Your task to perform on an android device: turn on notifications settings in the gmail app Image 0: 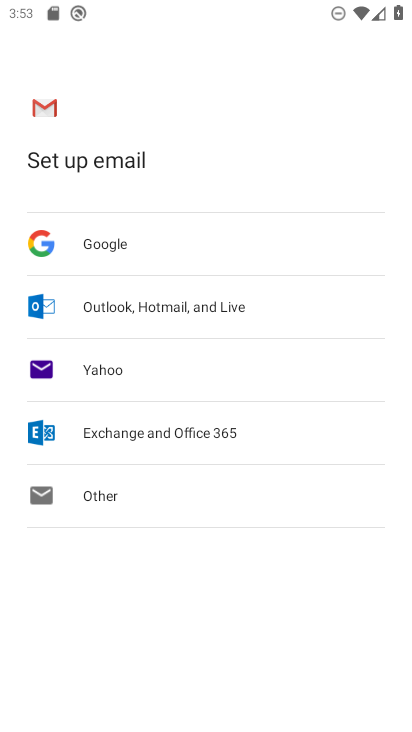
Step 0: press back button
Your task to perform on an android device: turn on notifications settings in the gmail app Image 1: 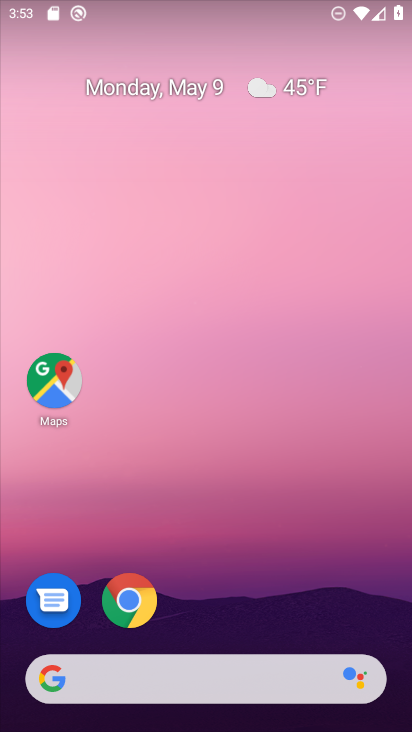
Step 1: drag from (280, 563) to (205, 4)
Your task to perform on an android device: turn on notifications settings in the gmail app Image 2: 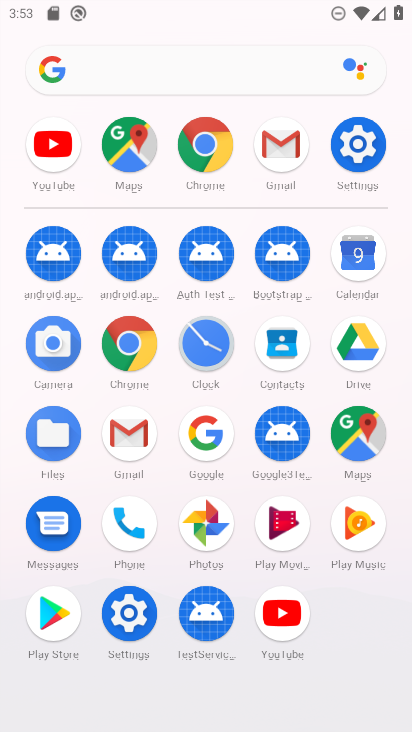
Step 2: drag from (1, 464) to (28, 165)
Your task to perform on an android device: turn on notifications settings in the gmail app Image 3: 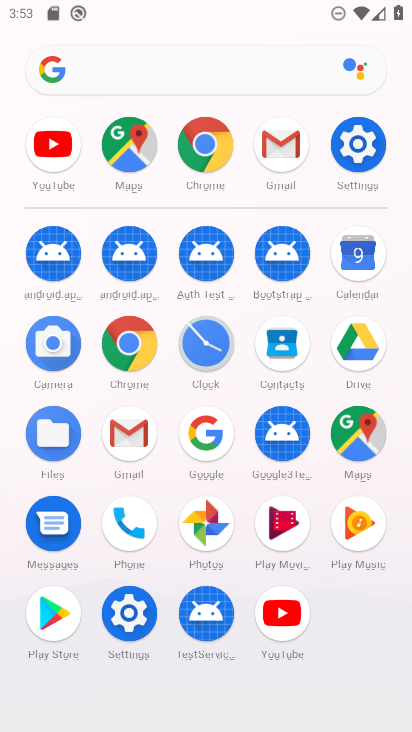
Step 3: drag from (0, 581) to (28, 275)
Your task to perform on an android device: turn on notifications settings in the gmail app Image 4: 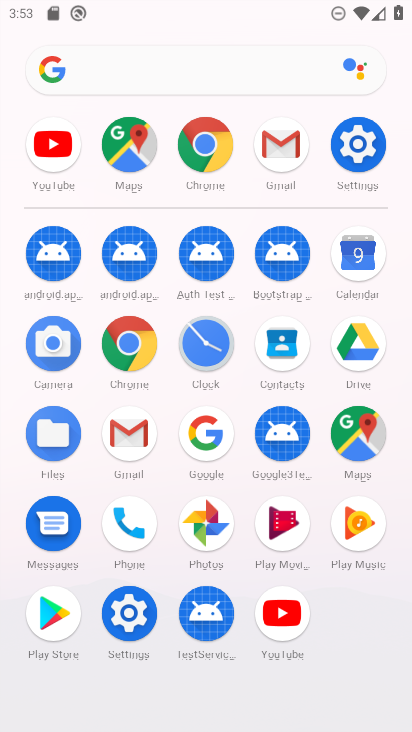
Step 4: click (289, 144)
Your task to perform on an android device: turn on notifications settings in the gmail app Image 5: 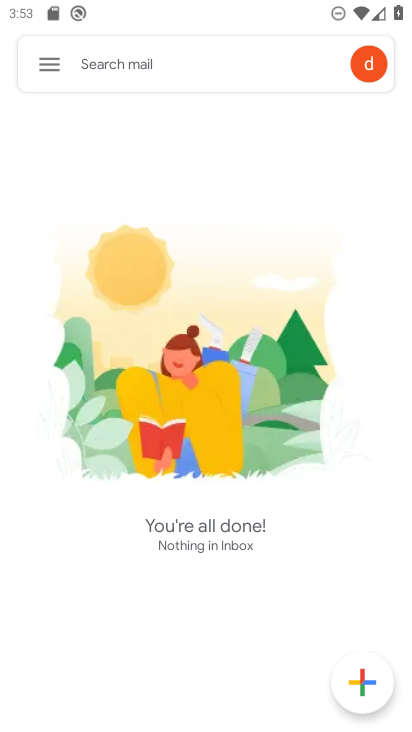
Step 5: click (58, 61)
Your task to perform on an android device: turn on notifications settings in the gmail app Image 6: 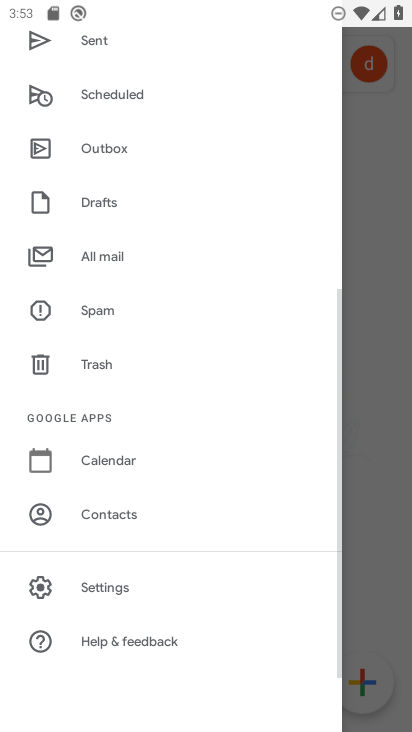
Step 6: drag from (170, 542) to (170, 176)
Your task to perform on an android device: turn on notifications settings in the gmail app Image 7: 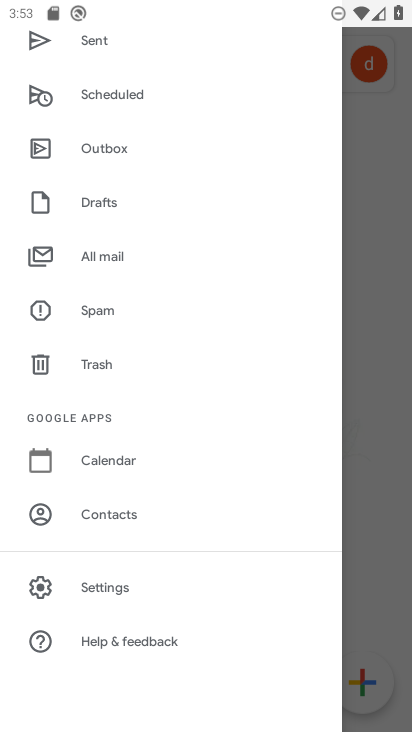
Step 7: click (119, 589)
Your task to perform on an android device: turn on notifications settings in the gmail app Image 8: 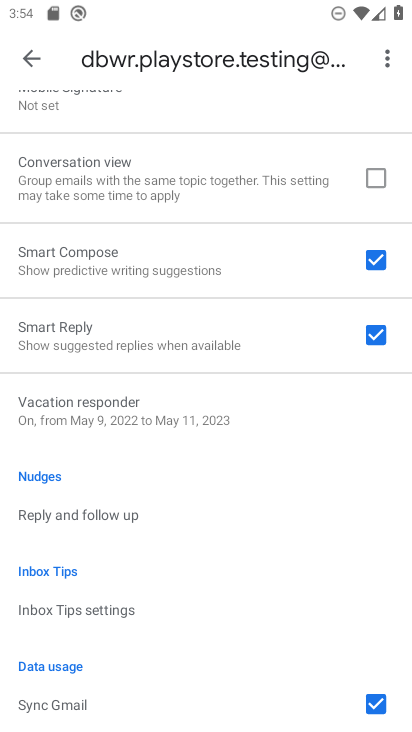
Step 8: drag from (248, 573) to (240, 116)
Your task to perform on an android device: turn on notifications settings in the gmail app Image 9: 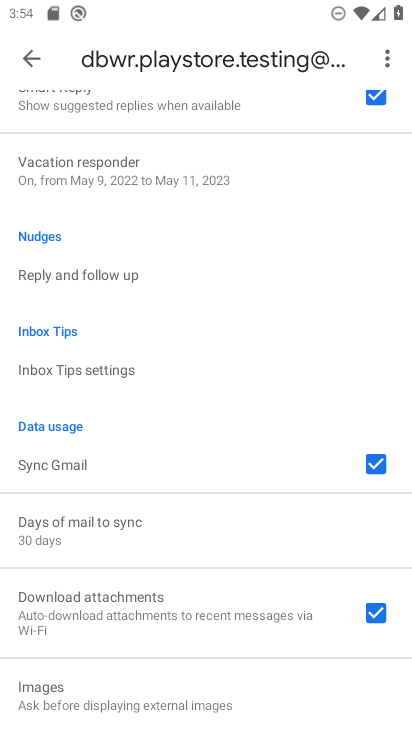
Step 9: drag from (229, 261) to (250, 640)
Your task to perform on an android device: turn on notifications settings in the gmail app Image 10: 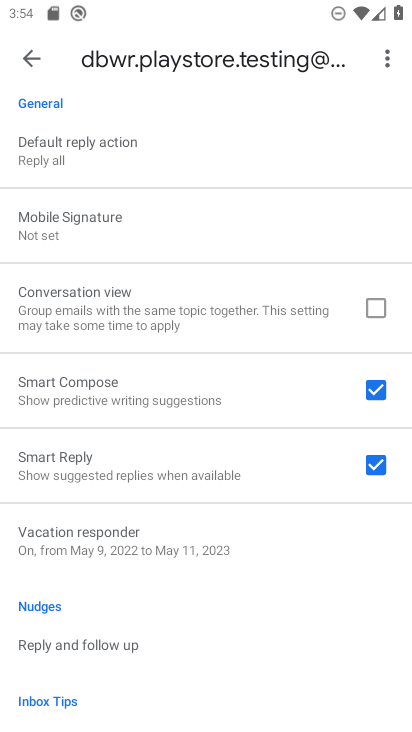
Step 10: drag from (267, 193) to (264, 544)
Your task to perform on an android device: turn on notifications settings in the gmail app Image 11: 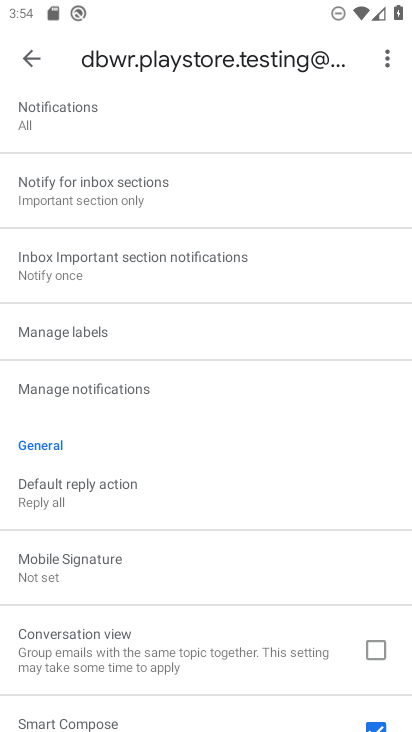
Step 11: click (93, 379)
Your task to perform on an android device: turn on notifications settings in the gmail app Image 12: 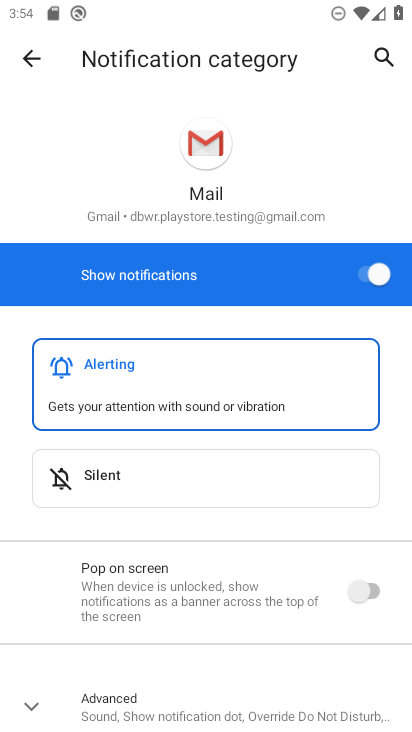
Step 12: task complete